Your task to perform on an android device: change text size in settings app Image 0: 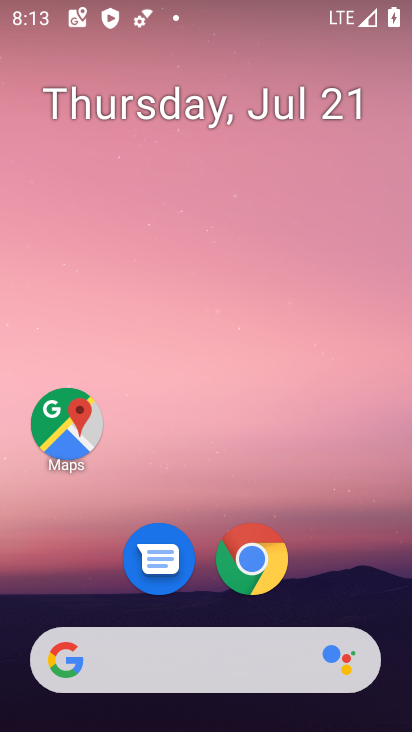
Step 0: drag from (214, 659) to (292, 76)
Your task to perform on an android device: change text size in settings app Image 1: 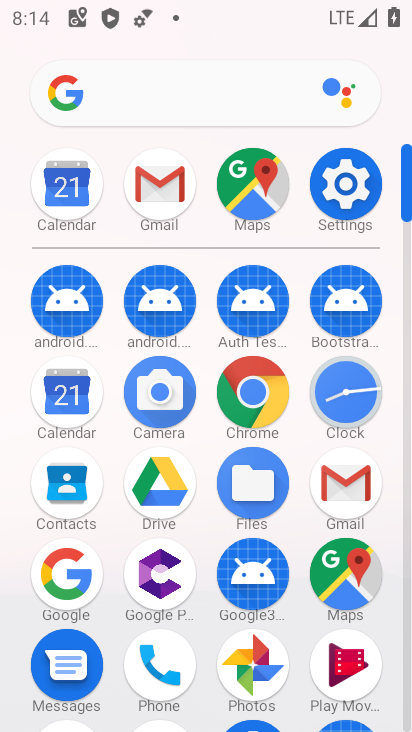
Step 1: click (347, 214)
Your task to perform on an android device: change text size in settings app Image 2: 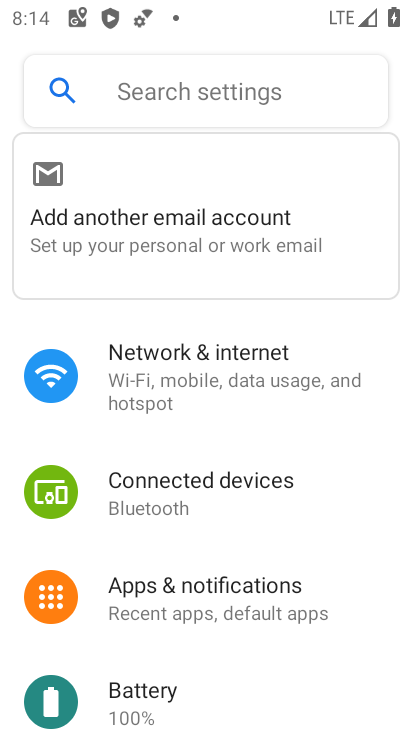
Step 2: drag from (219, 573) to (263, 272)
Your task to perform on an android device: change text size in settings app Image 3: 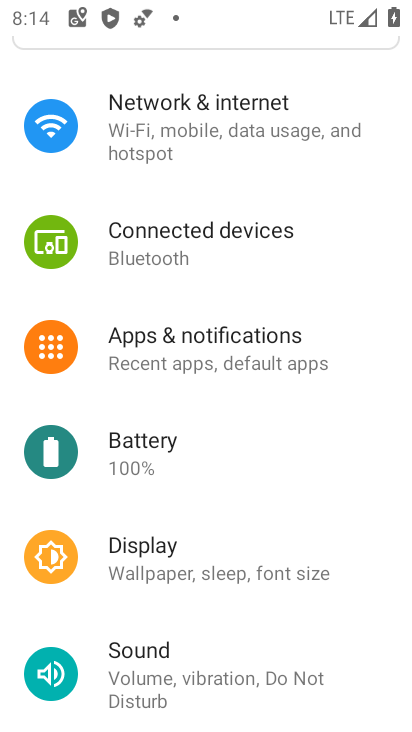
Step 3: click (198, 569)
Your task to perform on an android device: change text size in settings app Image 4: 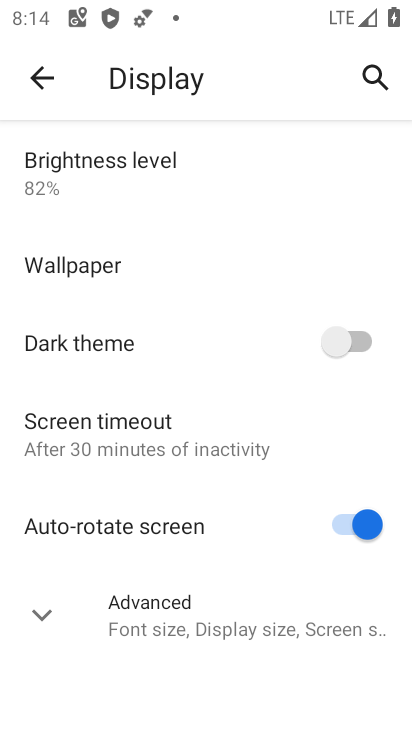
Step 4: click (222, 625)
Your task to perform on an android device: change text size in settings app Image 5: 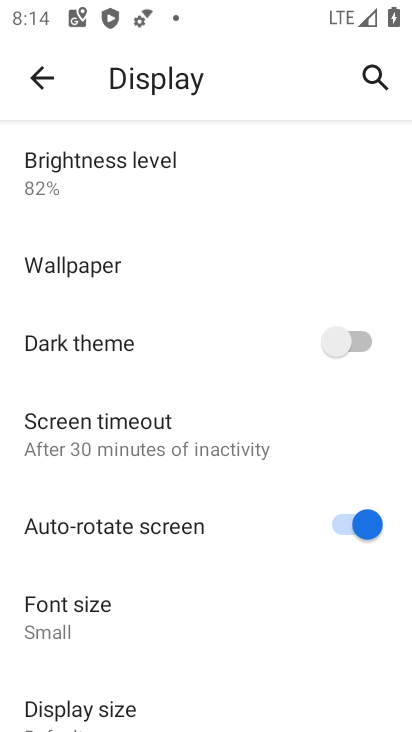
Step 5: click (69, 619)
Your task to perform on an android device: change text size in settings app Image 6: 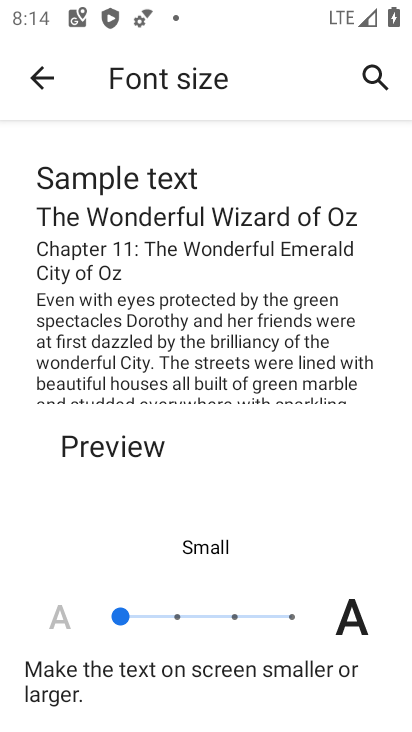
Step 6: click (237, 621)
Your task to perform on an android device: change text size in settings app Image 7: 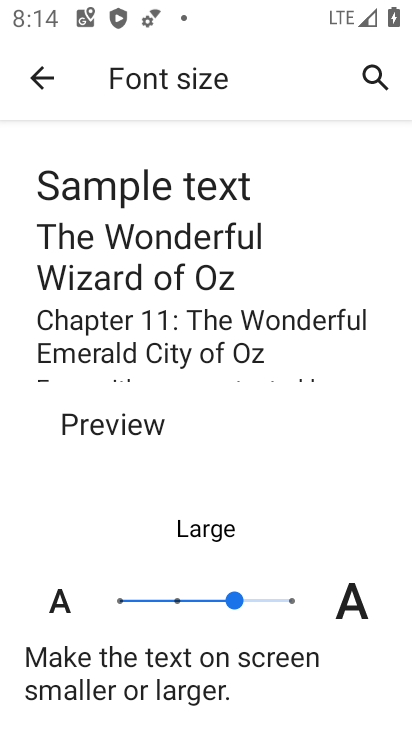
Step 7: task complete